Your task to perform on an android device: toggle location history Image 0: 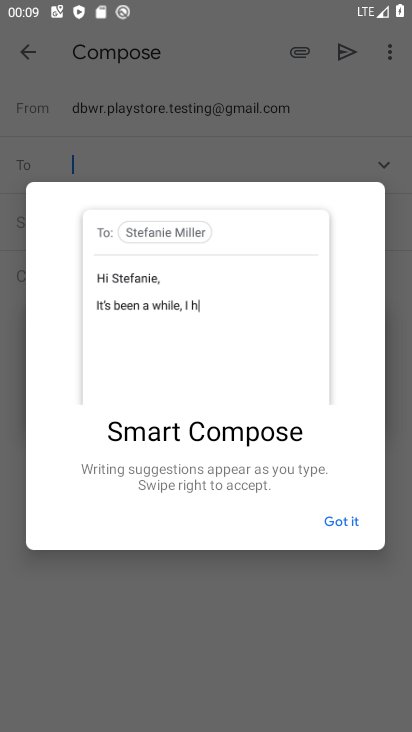
Step 0: press home button
Your task to perform on an android device: toggle location history Image 1: 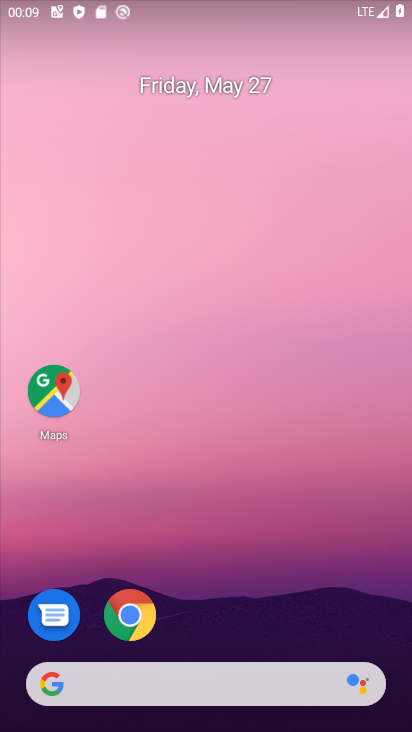
Step 1: drag from (294, 607) to (209, 66)
Your task to perform on an android device: toggle location history Image 2: 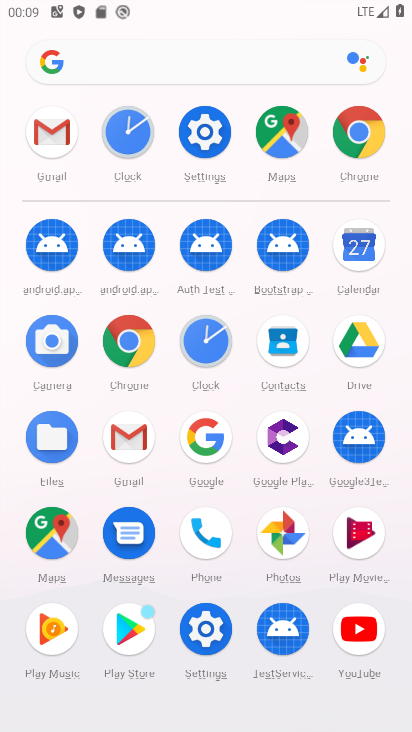
Step 2: click (294, 130)
Your task to perform on an android device: toggle location history Image 3: 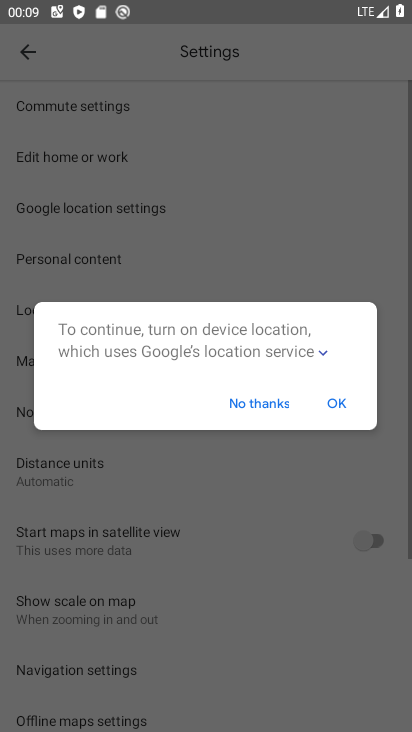
Step 3: click (32, 68)
Your task to perform on an android device: toggle location history Image 4: 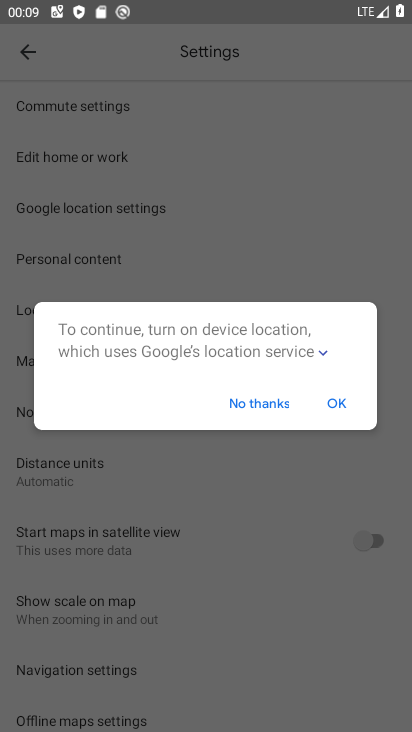
Step 4: click (287, 404)
Your task to perform on an android device: toggle location history Image 5: 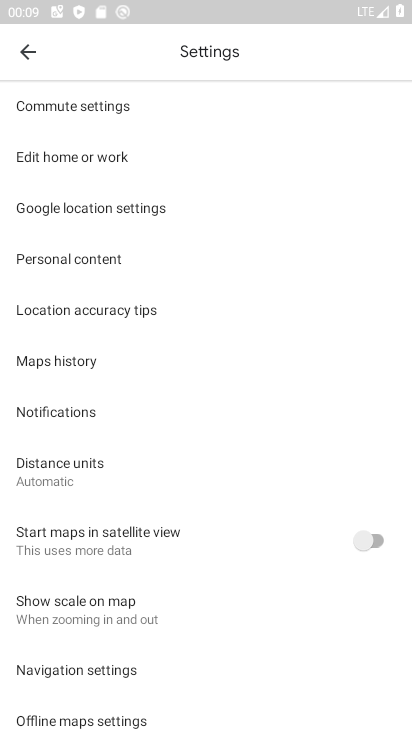
Step 5: click (35, 51)
Your task to perform on an android device: toggle location history Image 6: 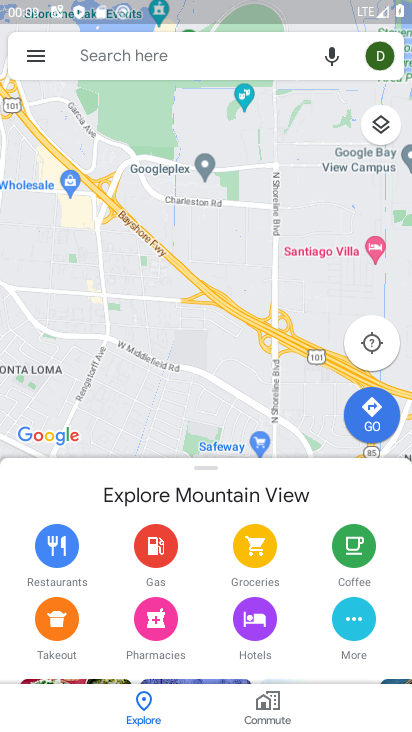
Step 6: click (25, 59)
Your task to perform on an android device: toggle location history Image 7: 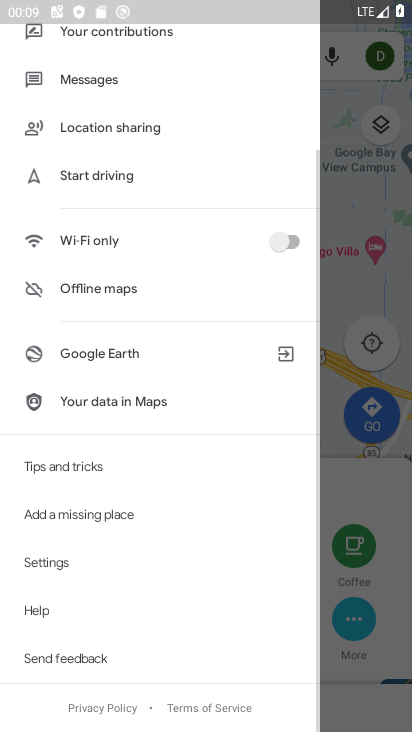
Step 7: drag from (71, 77) to (94, 719)
Your task to perform on an android device: toggle location history Image 8: 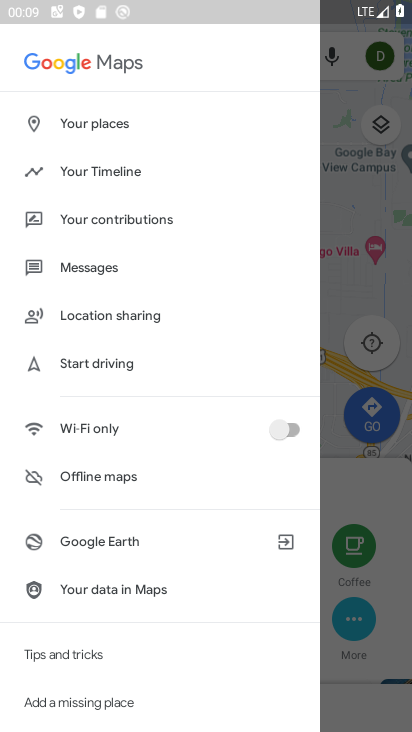
Step 8: click (92, 174)
Your task to perform on an android device: toggle location history Image 9: 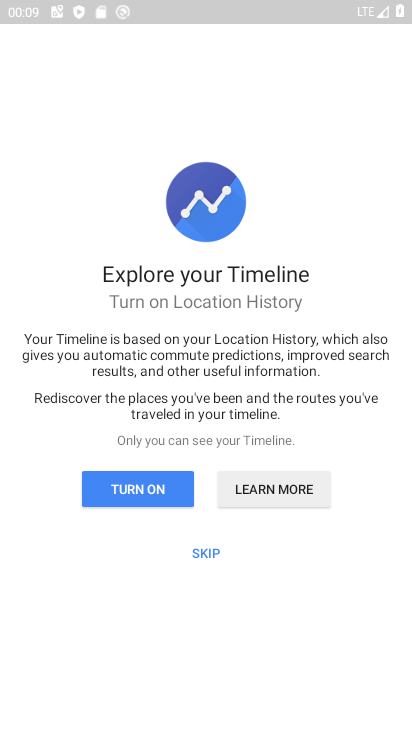
Step 9: click (117, 484)
Your task to perform on an android device: toggle location history Image 10: 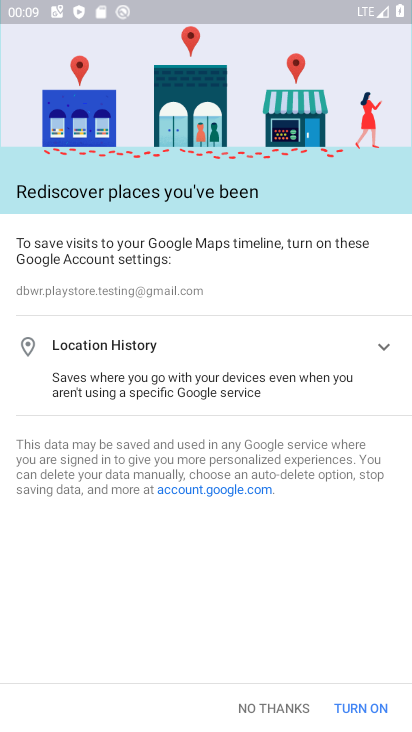
Step 10: click (368, 711)
Your task to perform on an android device: toggle location history Image 11: 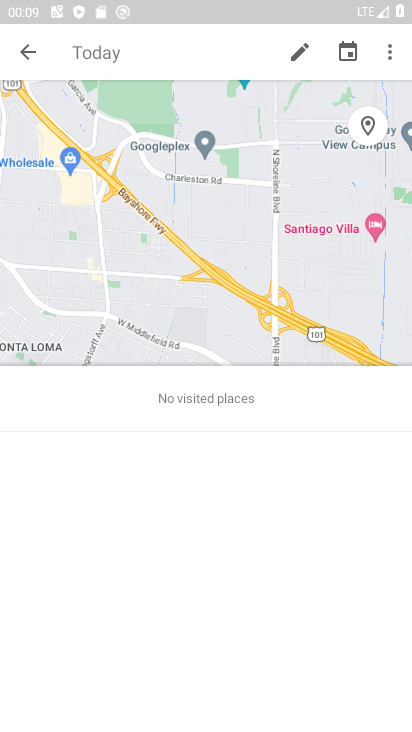
Step 11: task complete